Your task to perform on an android device: turn on showing notifications on the lock screen Image 0: 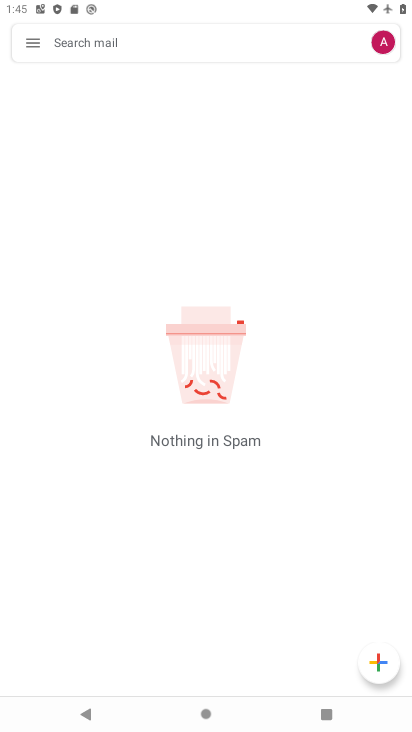
Step 0: press home button
Your task to perform on an android device: turn on showing notifications on the lock screen Image 1: 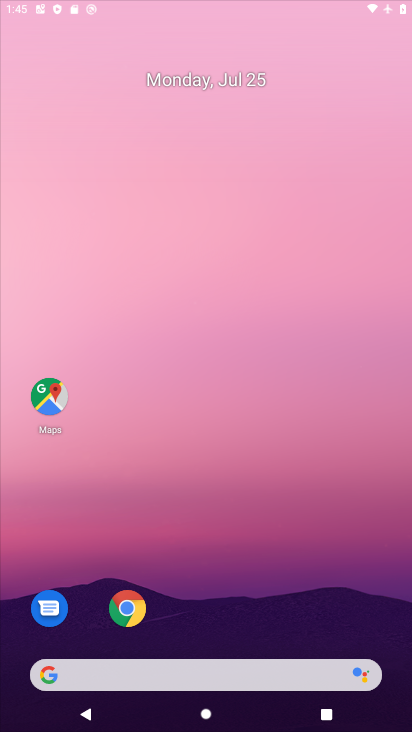
Step 1: drag from (190, 676) to (266, 84)
Your task to perform on an android device: turn on showing notifications on the lock screen Image 2: 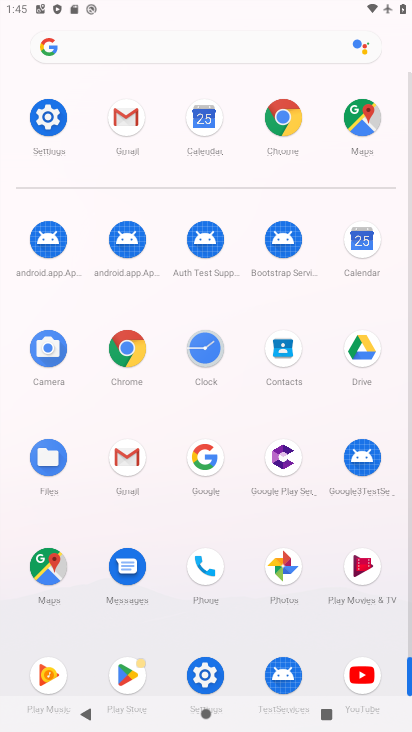
Step 2: click (61, 139)
Your task to perform on an android device: turn on showing notifications on the lock screen Image 3: 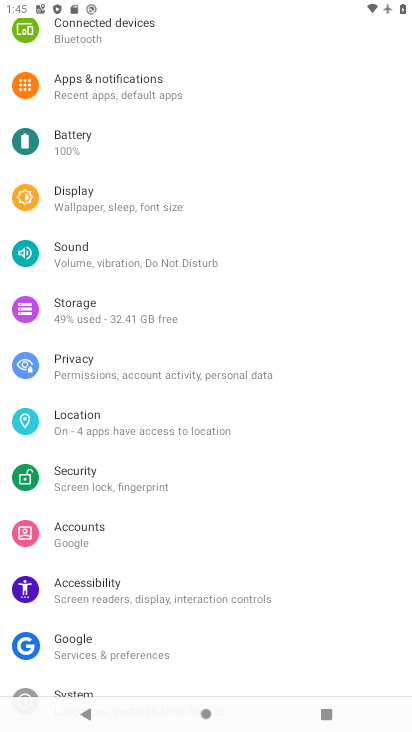
Step 3: click (137, 93)
Your task to perform on an android device: turn on showing notifications on the lock screen Image 4: 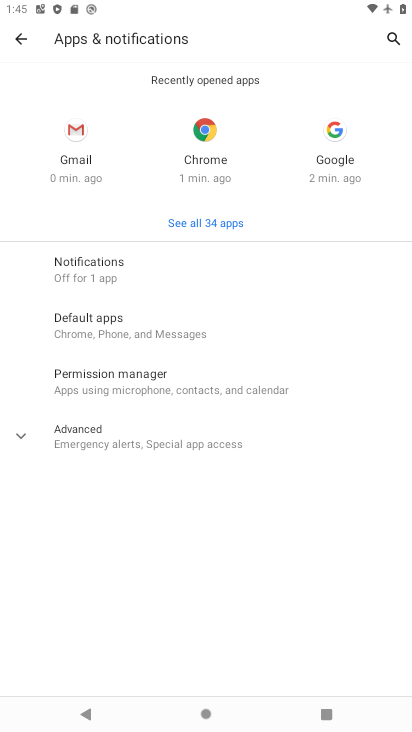
Step 4: click (160, 266)
Your task to perform on an android device: turn on showing notifications on the lock screen Image 5: 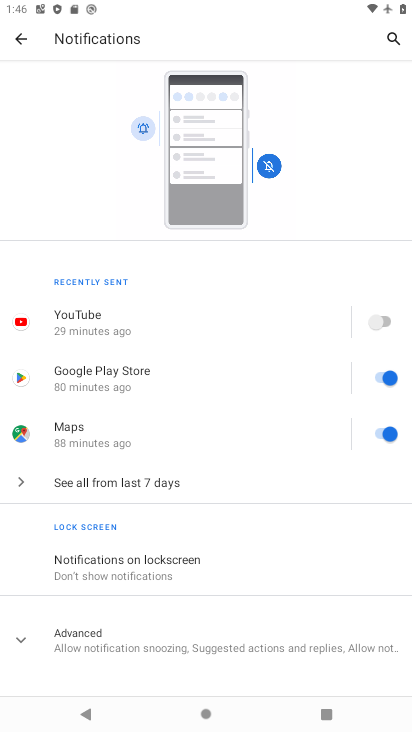
Step 5: click (165, 563)
Your task to perform on an android device: turn on showing notifications on the lock screen Image 6: 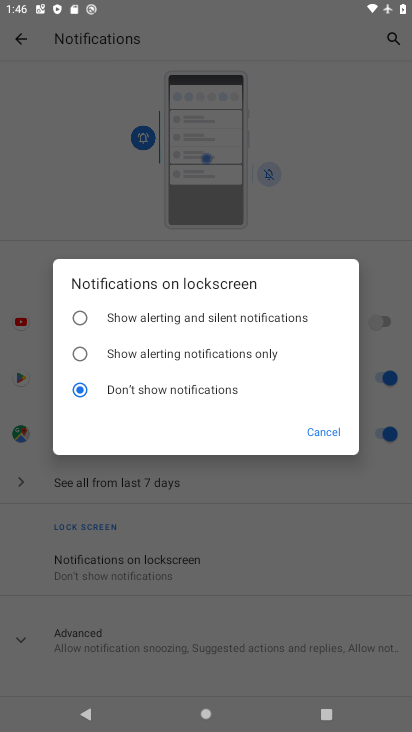
Step 6: click (79, 319)
Your task to perform on an android device: turn on showing notifications on the lock screen Image 7: 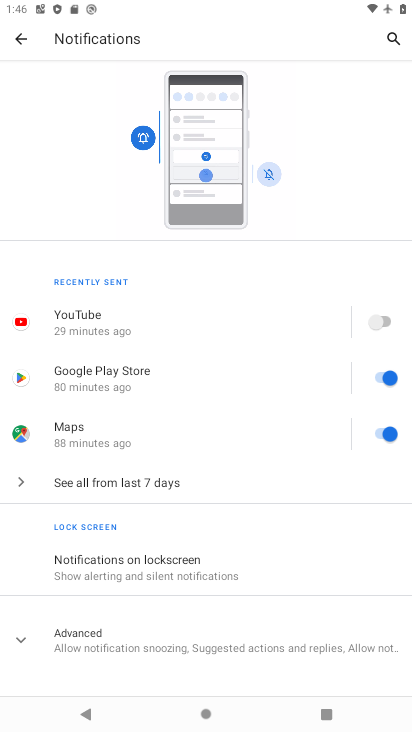
Step 7: task complete